Your task to perform on an android device: delete browsing data in the chrome app Image 0: 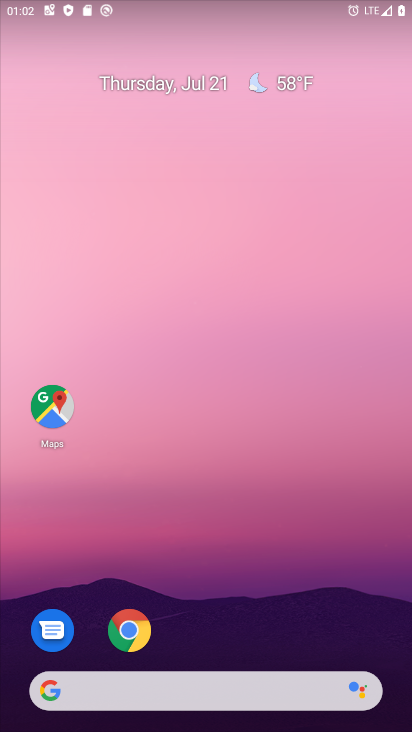
Step 0: click (119, 639)
Your task to perform on an android device: delete browsing data in the chrome app Image 1: 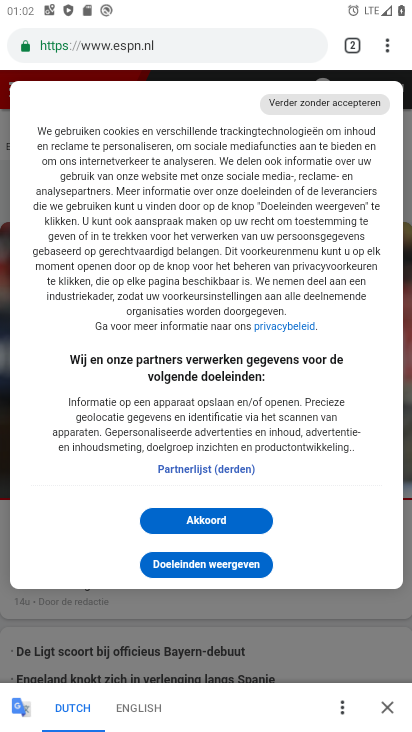
Step 1: click (392, 45)
Your task to perform on an android device: delete browsing data in the chrome app Image 2: 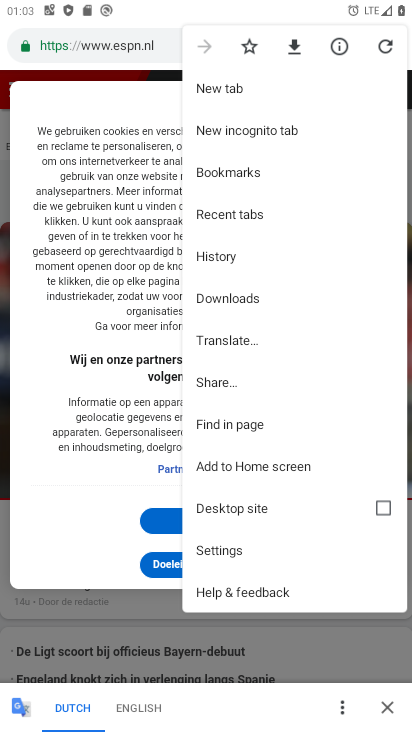
Step 2: click (243, 247)
Your task to perform on an android device: delete browsing data in the chrome app Image 3: 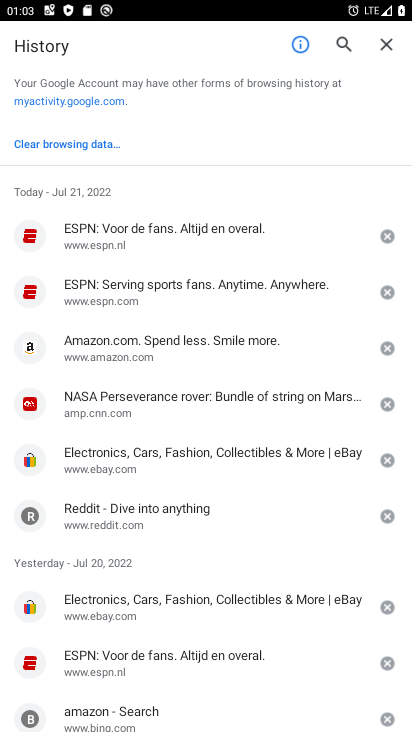
Step 3: click (112, 143)
Your task to perform on an android device: delete browsing data in the chrome app Image 4: 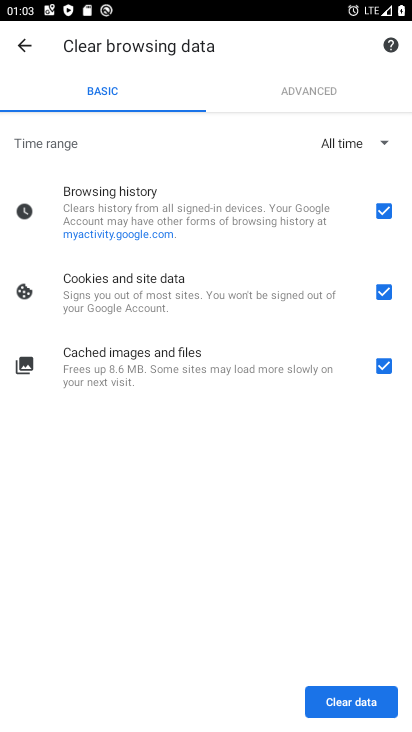
Step 4: click (376, 296)
Your task to perform on an android device: delete browsing data in the chrome app Image 5: 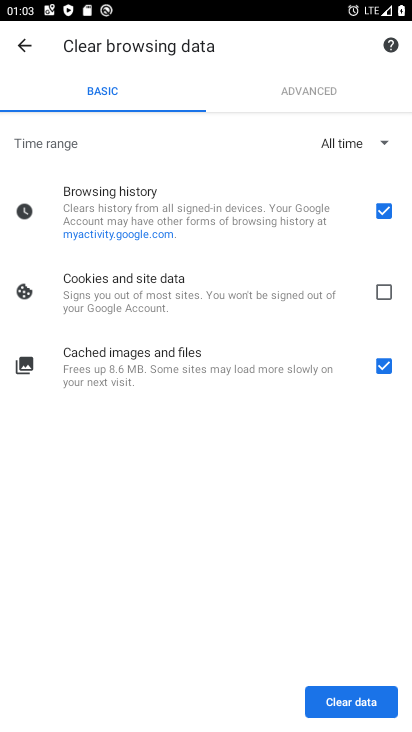
Step 5: click (377, 372)
Your task to perform on an android device: delete browsing data in the chrome app Image 6: 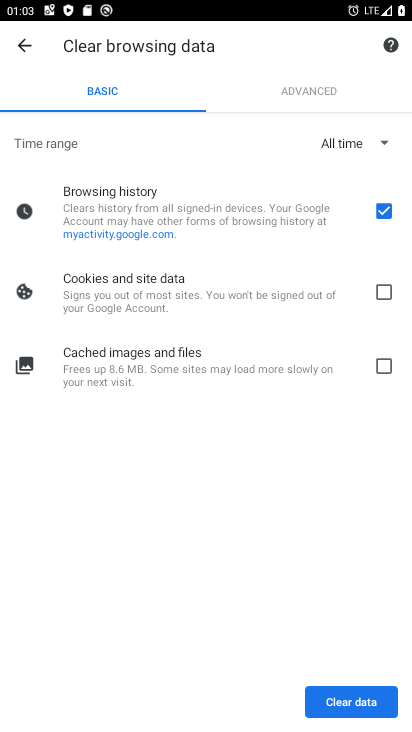
Step 6: click (316, 705)
Your task to perform on an android device: delete browsing data in the chrome app Image 7: 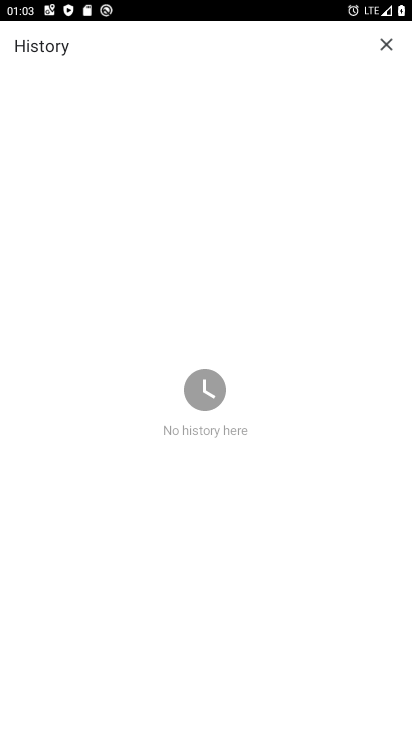
Step 7: task complete